Your task to perform on an android device: delete the emails in spam in the gmail app Image 0: 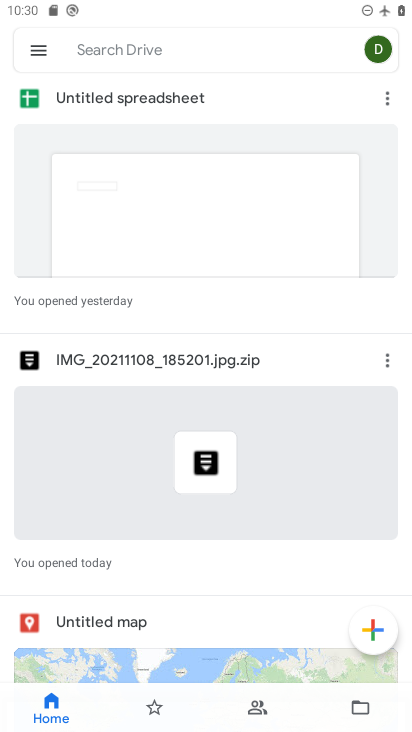
Step 0: press home button
Your task to perform on an android device: delete the emails in spam in the gmail app Image 1: 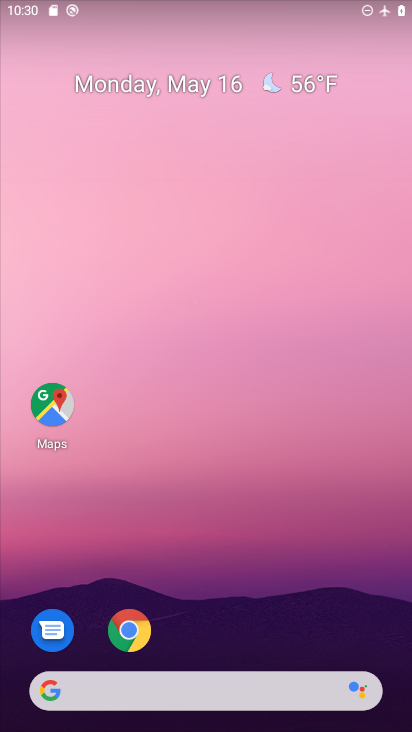
Step 1: drag from (203, 546) to (228, 28)
Your task to perform on an android device: delete the emails in spam in the gmail app Image 2: 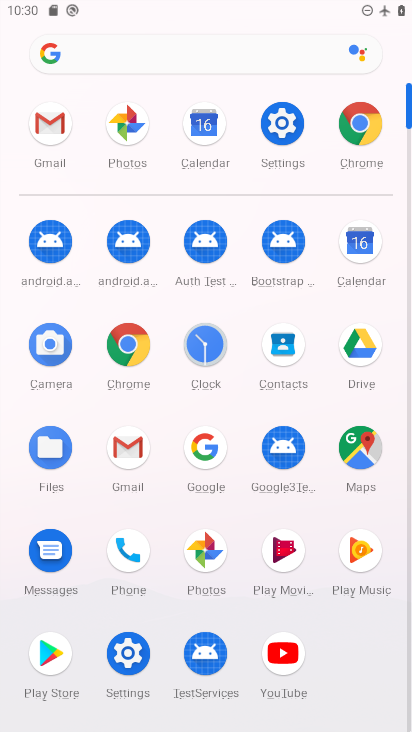
Step 2: click (58, 119)
Your task to perform on an android device: delete the emails in spam in the gmail app Image 3: 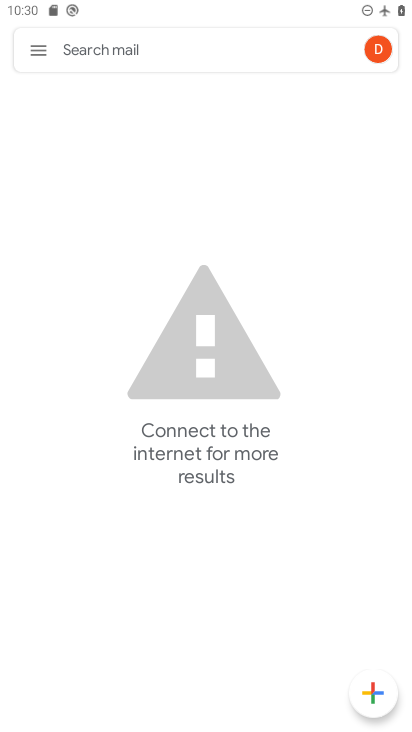
Step 3: click (40, 51)
Your task to perform on an android device: delete the emails in spam in the gmail app Image 4: 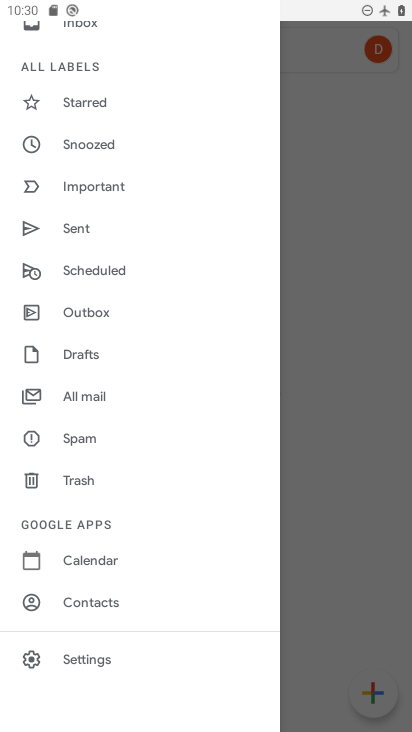
Step 4: click (88, 437)
Your task to perform on an android device: delete the emails in spam in the gmail app Image 5: 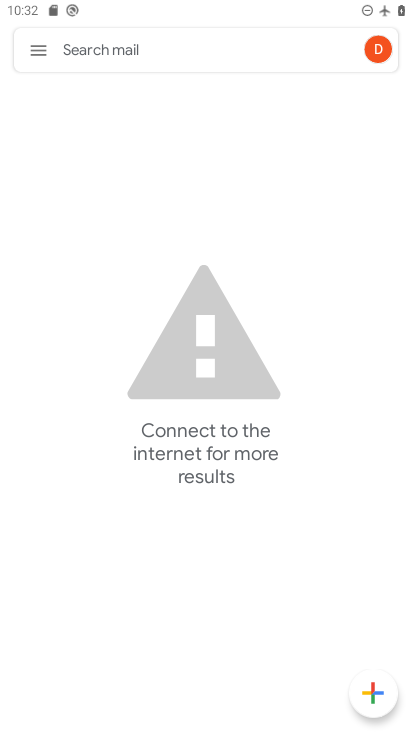
Step 5: task complete